Your task to perform on an android device: Open battery settings Image 0: 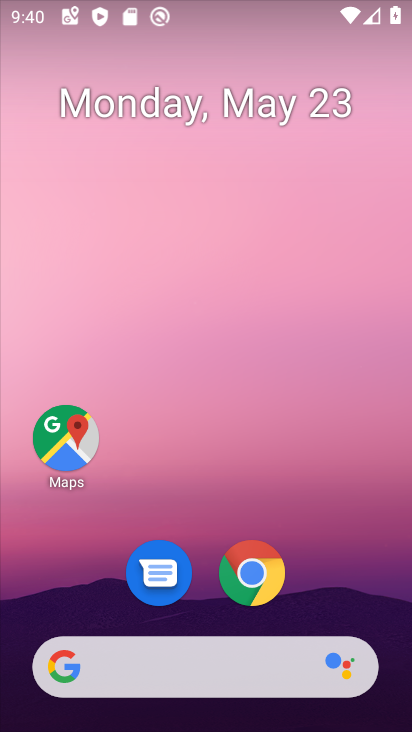
Step 0: drag from (380, 572) to (365, 254)
Your task to perform on an android device: Open battery settings Image 1: 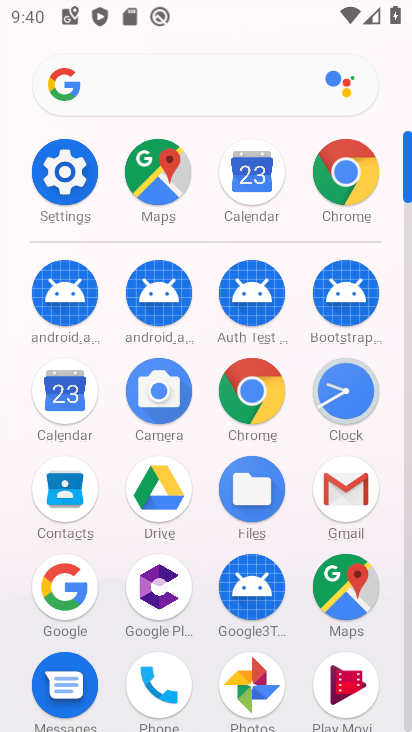
Step 1: drag from (392, 574) to (386, 333)
Your task to perform on an android device: Open battery settings Image 2: 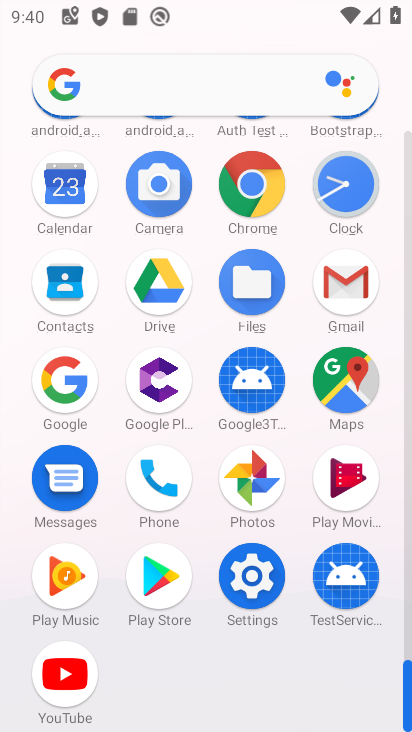
Step 2: click (258, 588)
Your task to perform on an android device: Open battery settings Image 3: 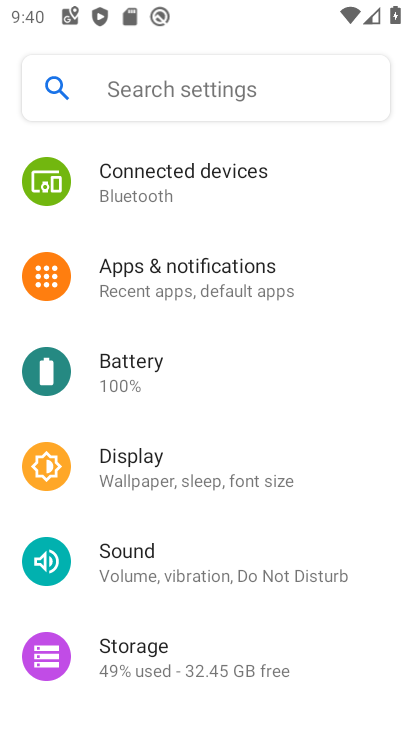
Step 3: drag from (352, 279) to (360, 420)
Your task to perform on an android device: Open battery settings Image 4: 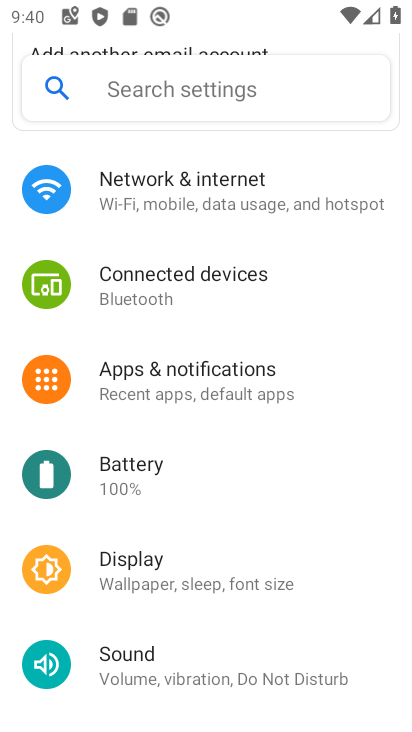
Step 4: drag from (333, 257) to (325, 404)
Your task to perform on an android device: Open battery settings Image 5: 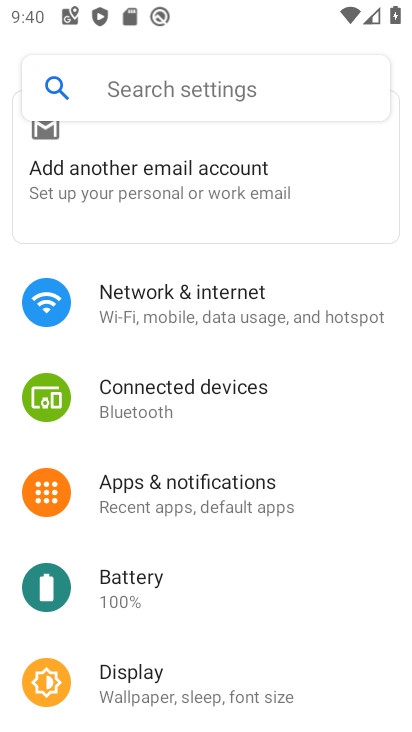
Step 5: drag from (340, 246) to (349, 409)
Your task to perform on an android device: Open battery settings Image 6: 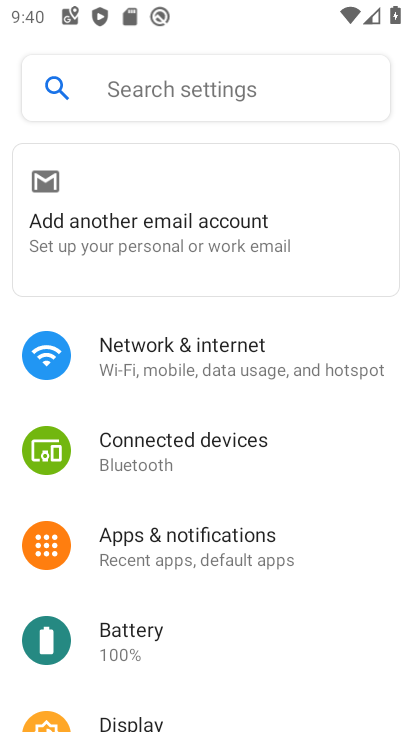
Step 6: drag from (354, 486) to (361, 333)
Your task to perform on an android device: Open battery settings Image 7: 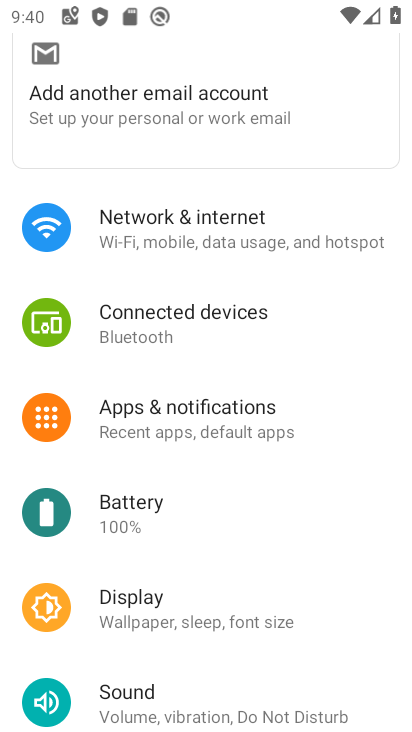
Step 7: drag from (345, 477) to (347, 345)
Your task to perform on an android device: Open battery settings Image 8: 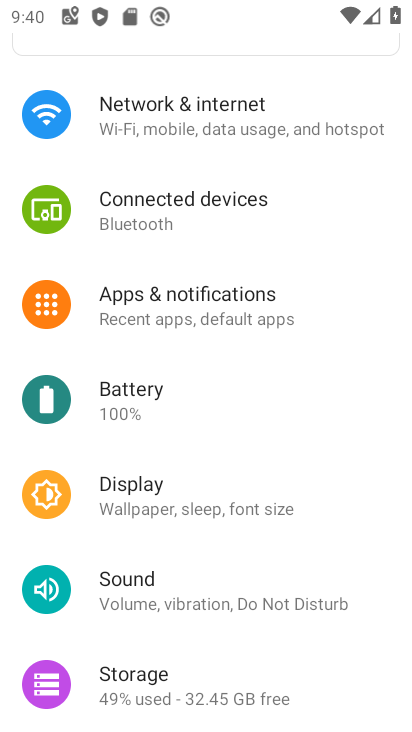
Step 8: drag from (356, 466) to (359, 371)
Your task to perform on an android device: Open battery settings Image 9: 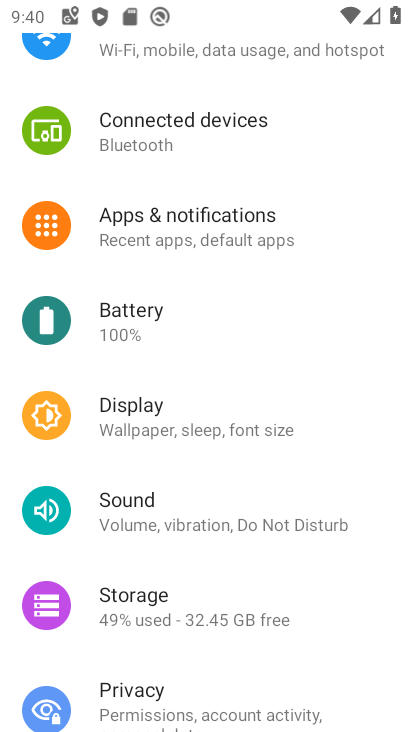
Step 9: click (211, 342)
Your task to perform on an android device: Open battery settings Image 10: 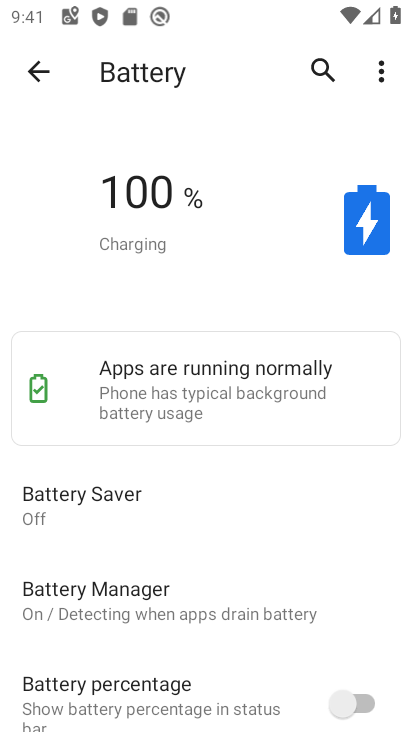
Step 10: task complete